Your task to perform on an android device: Go to wifi settings Image 0: 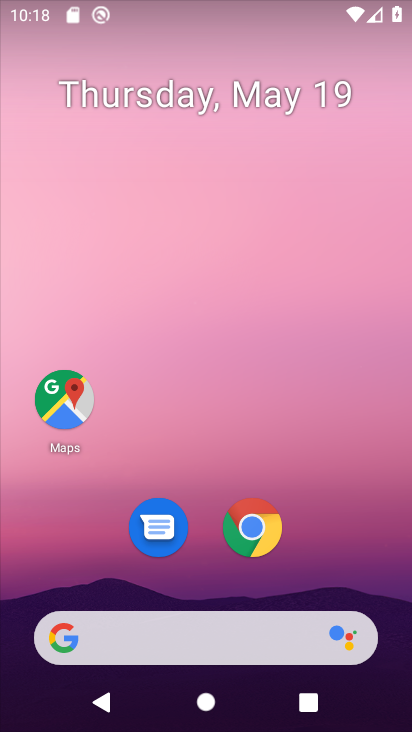
Step 0: drag from (350, 552) to (251, 22)
Your task to perform on an android device: Go to wifi settings Image 1: 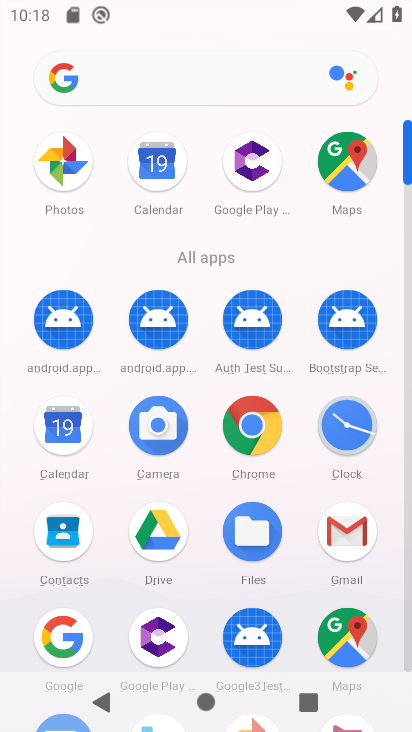
Step 1: click (409, 581)
Your task to perform on an android device: Go to wifi settings Image 2: 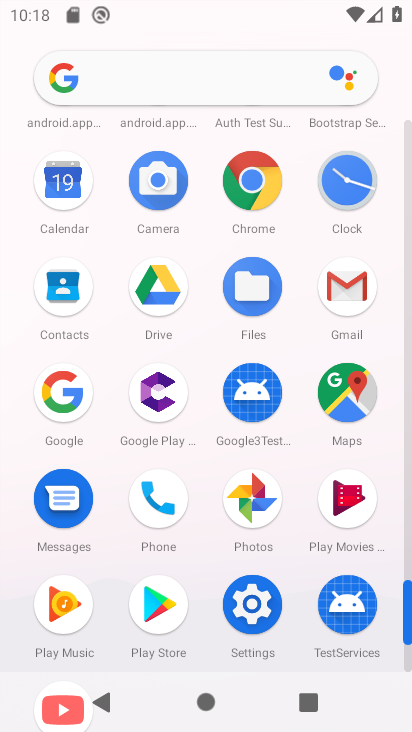
Step 2: click (256, 605)
Your task to perform on an android device: Go to wifi settings Image 3: 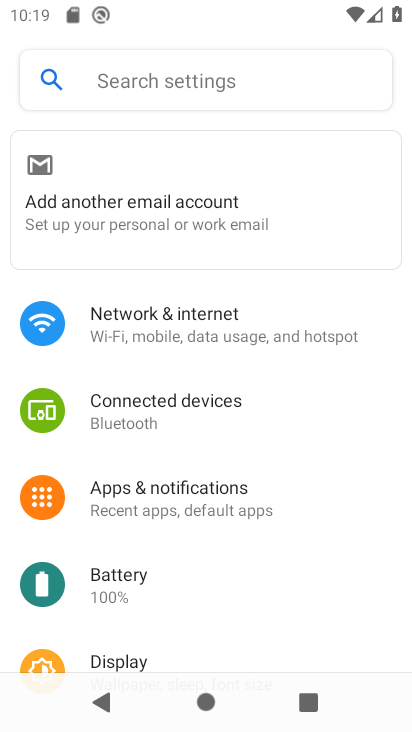
Step 3: click (269, 352)
Your task to perform on an android device: Go to wifi settings Image 4: 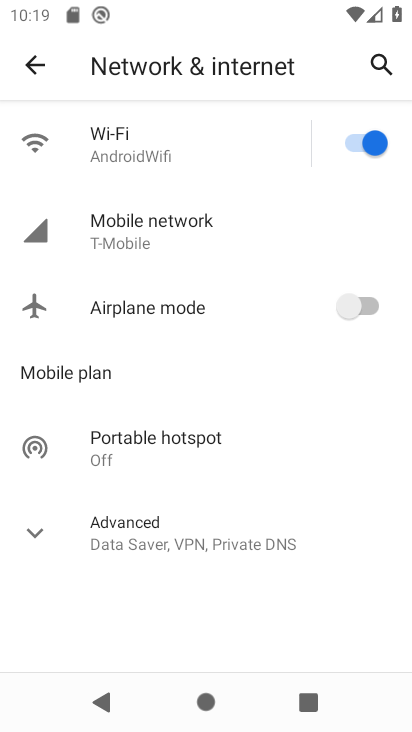
Step 4: click (163, 155)
Your task to perform on an android device: Go to wifi settings Image 5: 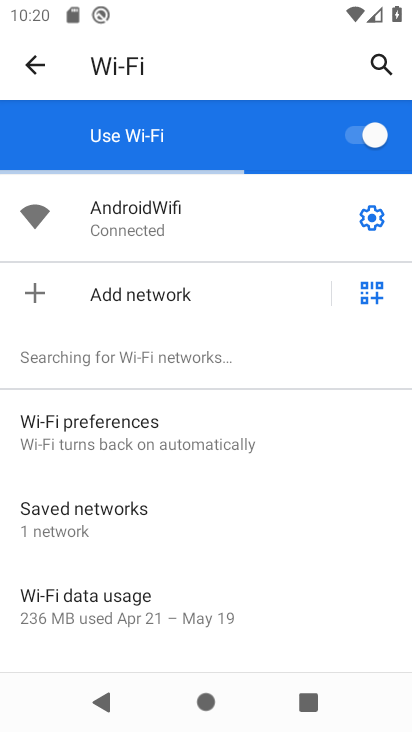
Step 5: task complete